Your task to perform on an android device: toggle priority inbox in the gmail app Image 0: 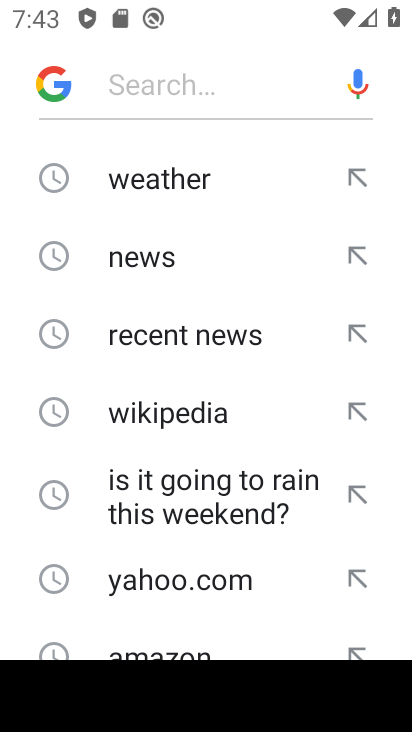
Step 0: press home button
Your task to perform on an android device: toggle priority inbox in the gmail app Image 1: 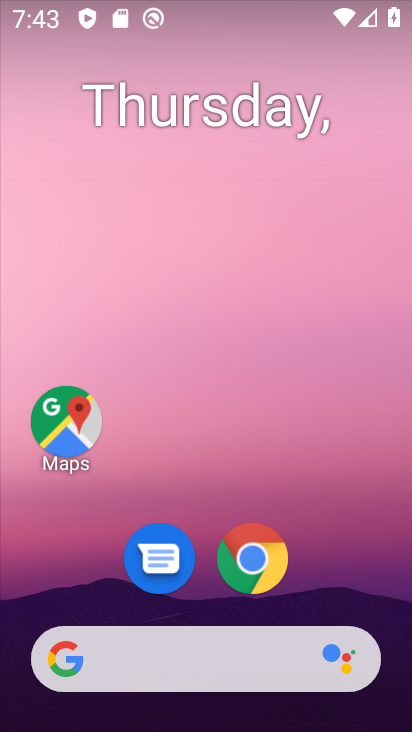
Step 1: drag from (204, 623) to (289, 82)
Your task to perform on an android device: toggle priority inbox in the gmail app Image 2: 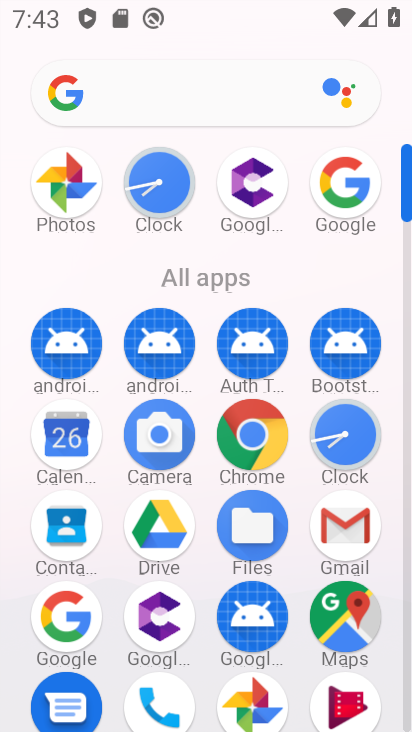
Step 2: click (336, 532)
Your task to perform on an android device: toggle priority inbox in the gmail app Image 3: 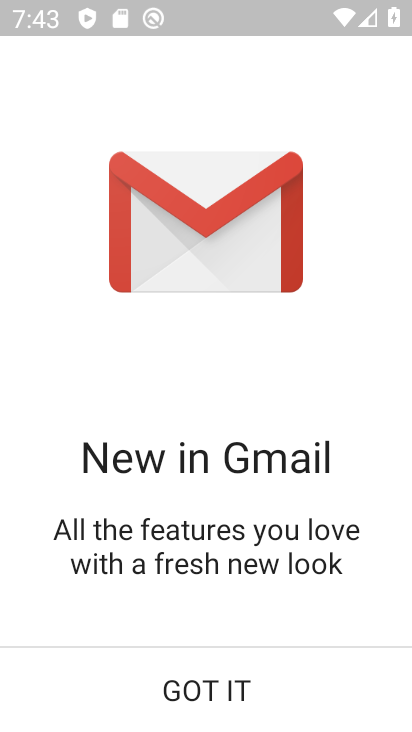
Step 3: click (228, 696)
Your task to perform on an android device: toggle priority inbox in the gmail app Image 4: 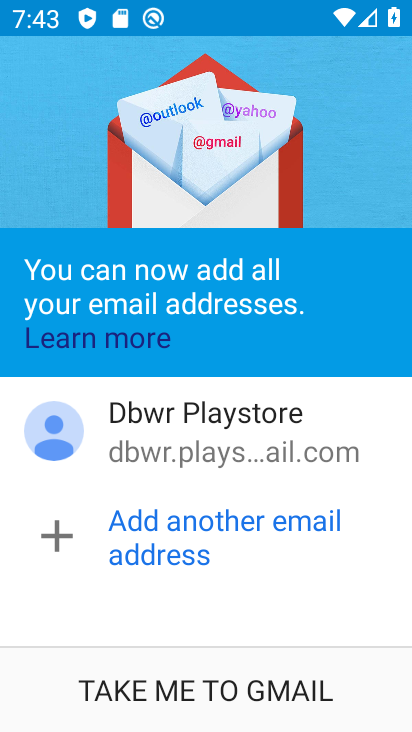
Step 4: click (228, 696)
Your task to perform on an android device: toggle priority inbox in the gmail app Image 5: 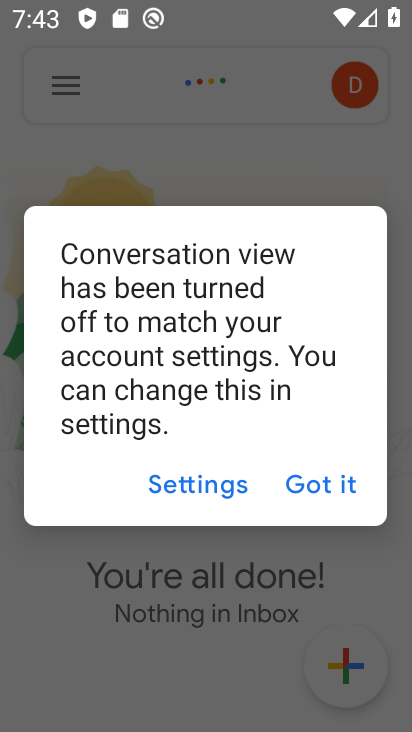
Step 5: click (318, 481)
Your task to perform on an android device: toggle priority inbox in the gmail app Image 6: 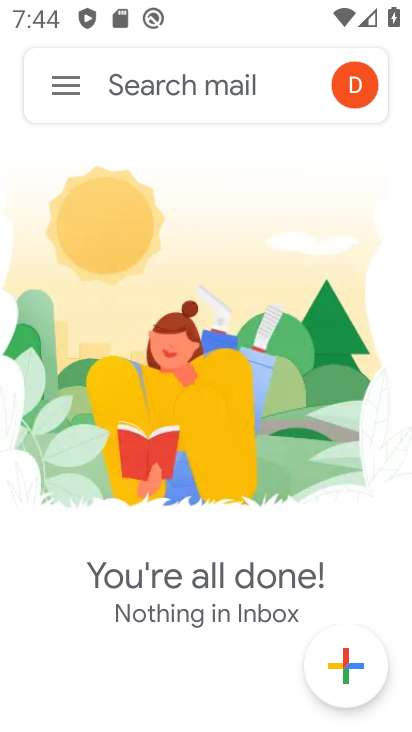
Step 6: click (65, 85)
Your task to perform on an android device: toggle priority inbox in the gmail app Image 7: 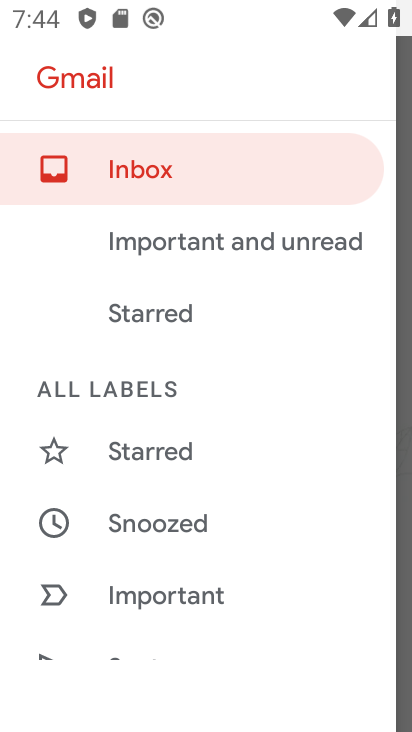
Step 7: drag from (115, 637) to (152, 77)
Your task to perform on an android device: toggle priority inbox in the gmail app Image 8: 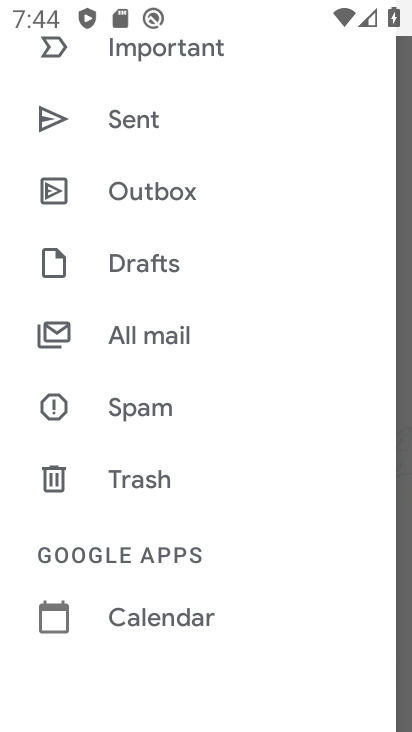
Step 8: drag from (170, 561) to (194, 115)
Your task to perform on an android device: toggle priority inbox in the gmail app Image 9: 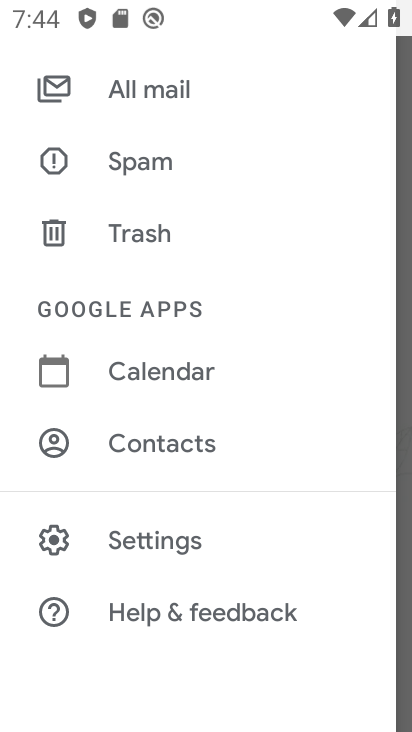
Step 9: click (174, 539)
Your task to perform on an android device: toggle priority inbox in the gmail app Image 10: 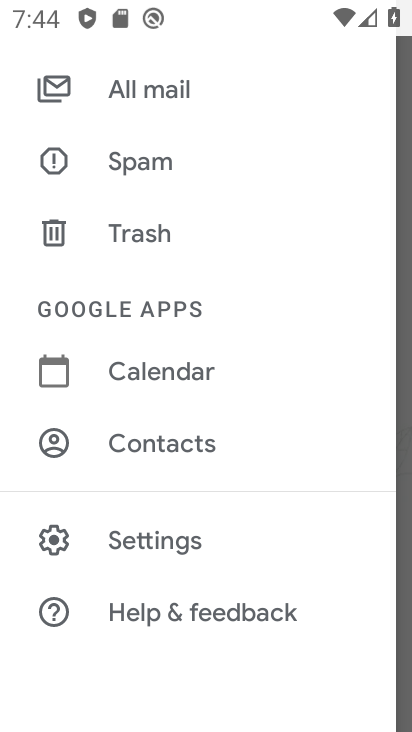
Step 10: click (174, 539)
Your task to perform on an android device: toggle priority inbox in the gmail app Image 11: 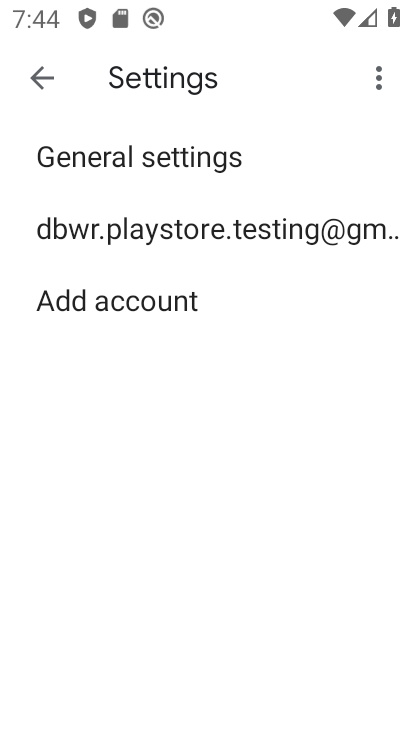
Step 11: click (185, 237)
Your task to perform on an android device: toggle priority inbox in the gmail app Image 12: 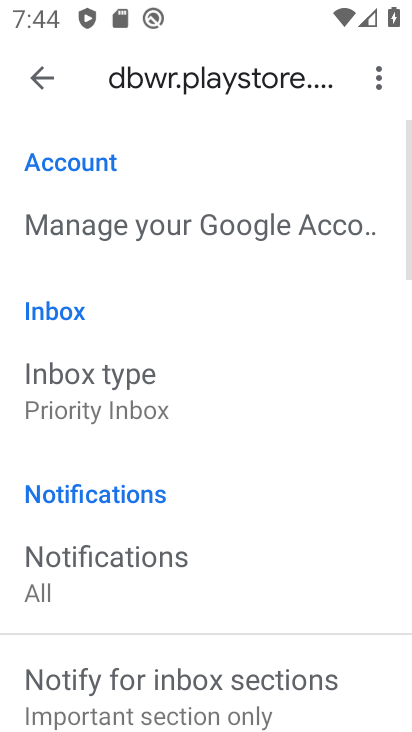
Step 12: click (110, 405)
Your task to perform on an android device: toggle priority inbox in the gmail app Image 13: 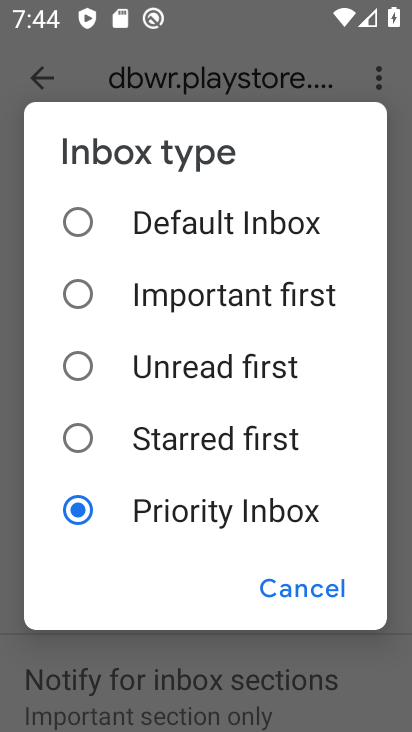
Step 13: click (157, 371)
Your task to perform on an android device: toggle priority inbox in the gmail app Image 14: 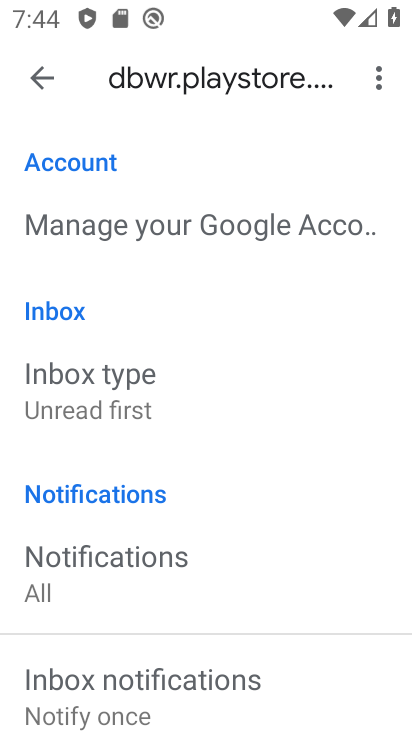
Step 14: task complete